Your task to perform on an android device: Open Youtube and go to "Your channel" Image 0: 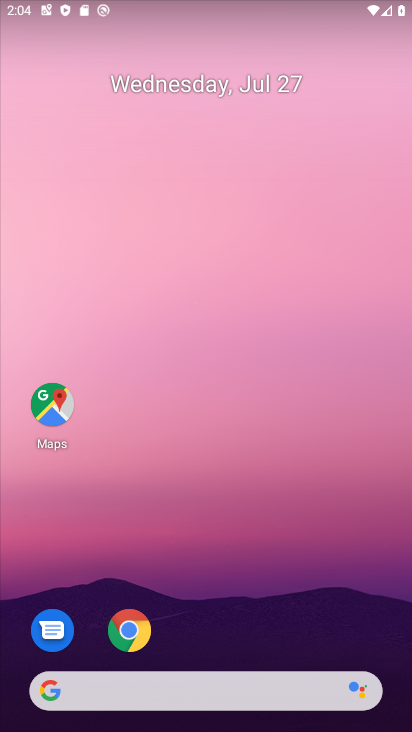
Step 0: drag from (398, 702) to (345, 125)
Your task to perform on an android device: Open Youtube and go to "Your channel" Image 1: 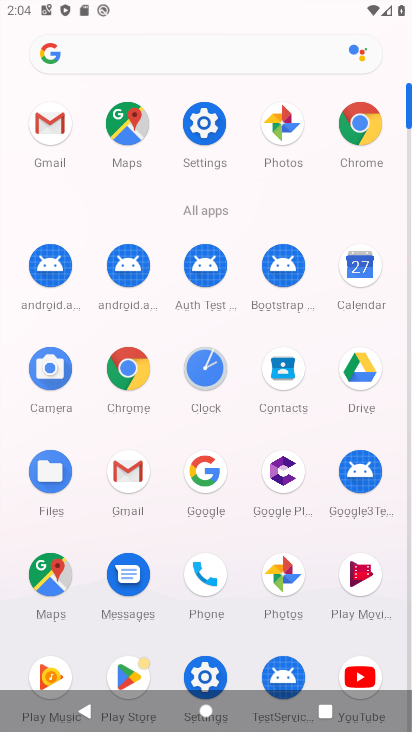
Step 1: click (360, 663)
Your task to perform on an android device: Open Youtube and go to "Your channel" Image 2: 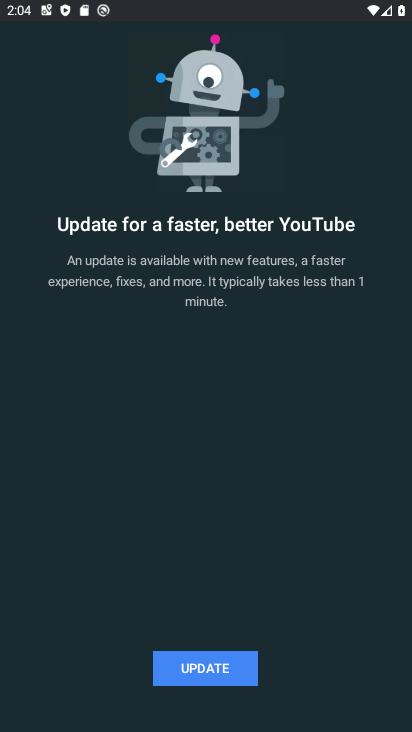
Step 2: click (50, 674)
Your task to perform on an android device: Open Youtube and go to "Your channel" Image 3: 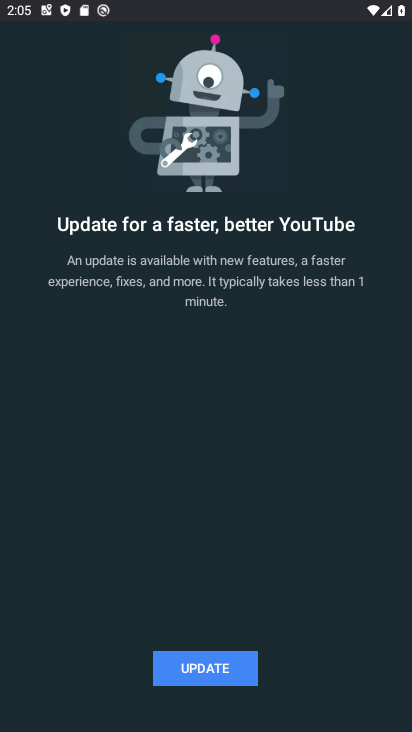
Step 3: click (211, 665)
Your task to perform on an android device: Open Youtube and go to "Your channel" Image 4: 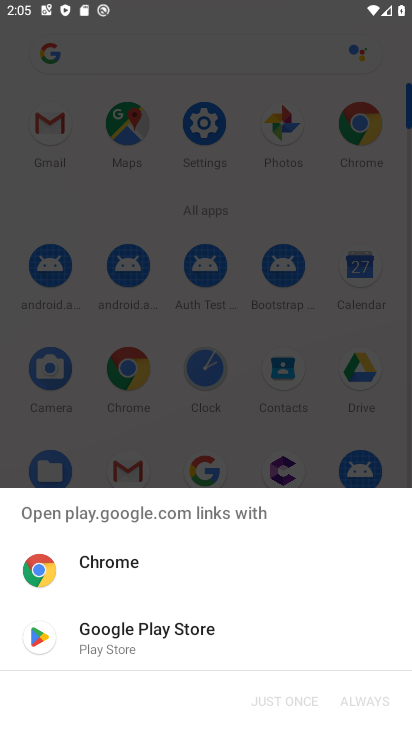
Step 4: click (166, 618)
Your task to perform on an android device: Open Youtube and go to "Your channel" Image 5: 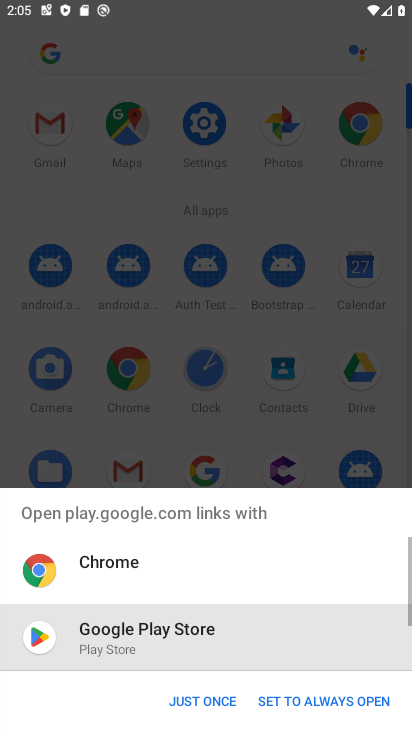
Step 5: click (206, 700)
Your task to perform on an android device: Open Youtube and go to "Your channel" Image 6: 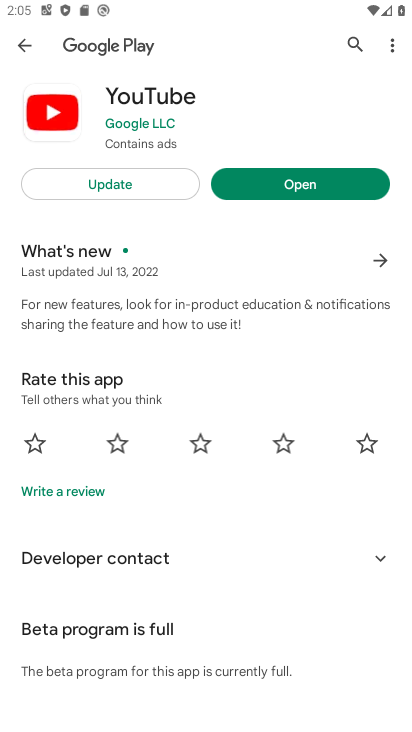
Step 6: click (128, 185)
Your task to perform on an android device: Open Youtube and go to "Your channel" Image 7: 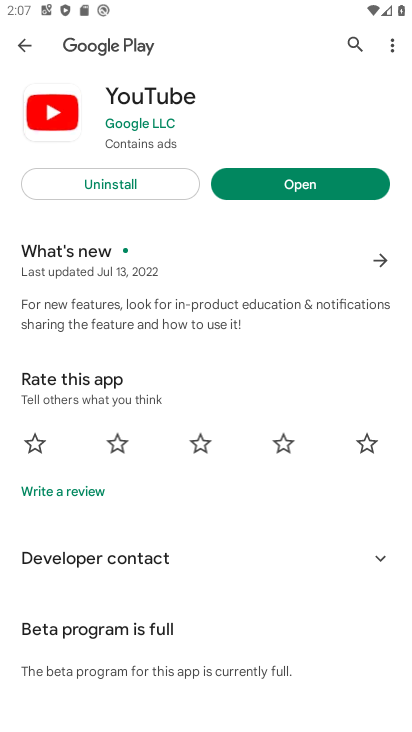
Step 7: click (296, 186)
Your task to perform on an android device: Open Youtube and go to "Your channel" Image 8: 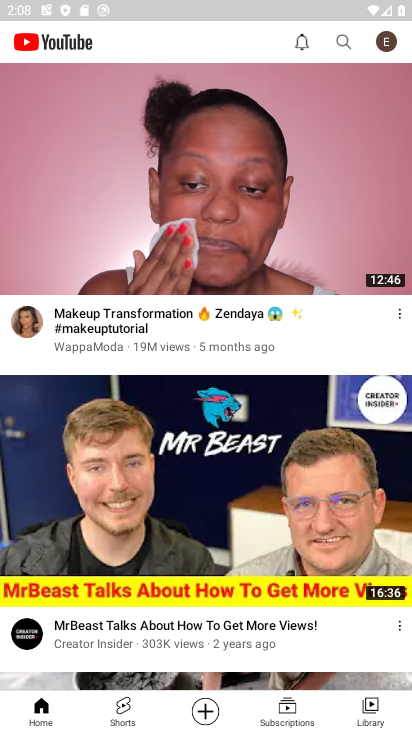
Step 8: click (380, 32)
Your task to perform on an android device: Open Youtube and go to "Your channel" Image 9: 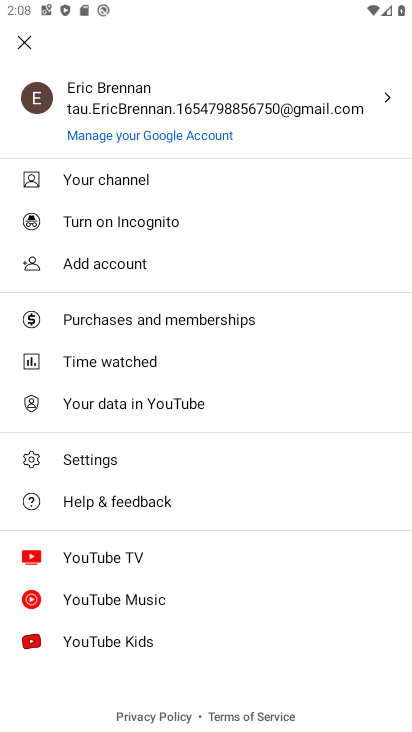
Step 9: click (111, 175)
Your task to perform on an android device: Open Youtube and go to "Your channel" Image 10: 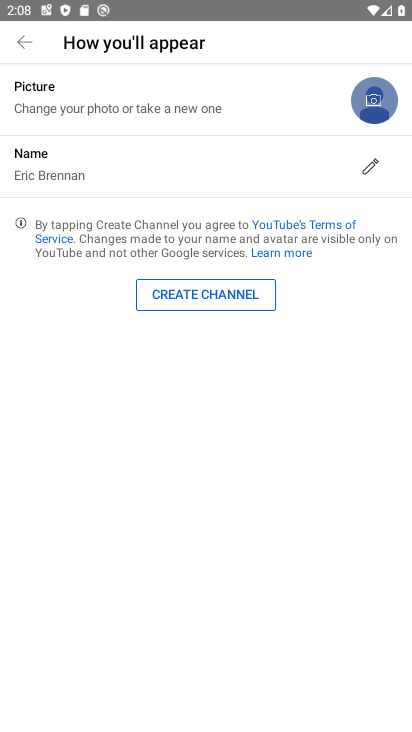
Step 10: task complete